Your task to perform on an android device: What's the weather? Image 0: 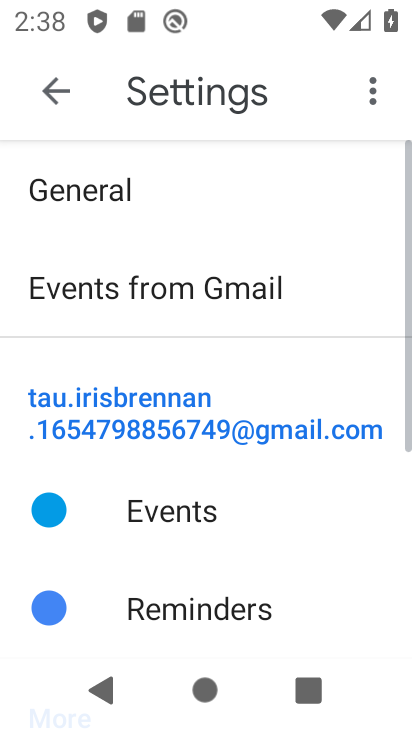
Step 0: drag from (346, 483) to (346, 289)
Your task to perform on an android device: What's the weather? Image 1: 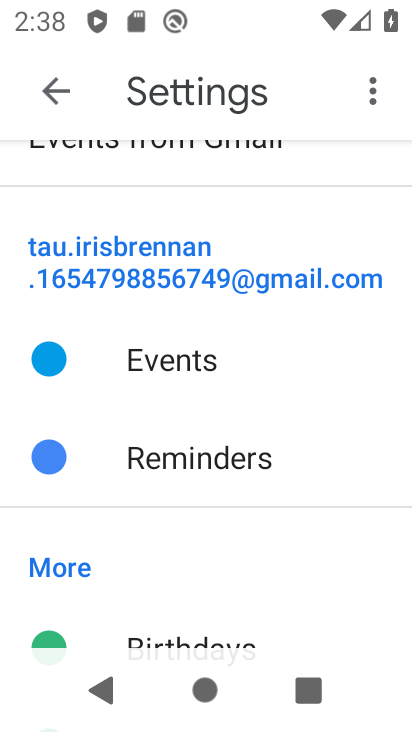
Step 1: press home button
Your task to perform on an android device: What's the weather? Image 2: 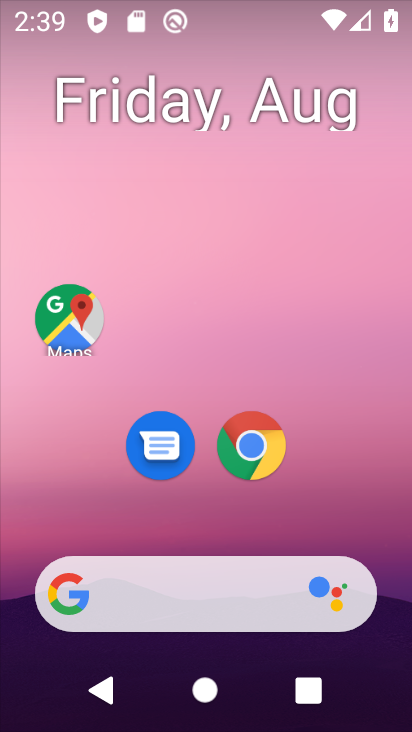
Step 2: drag from (331, 482) to (324, 144)
Your task to perform on an android device: What's the weather? Image 3: 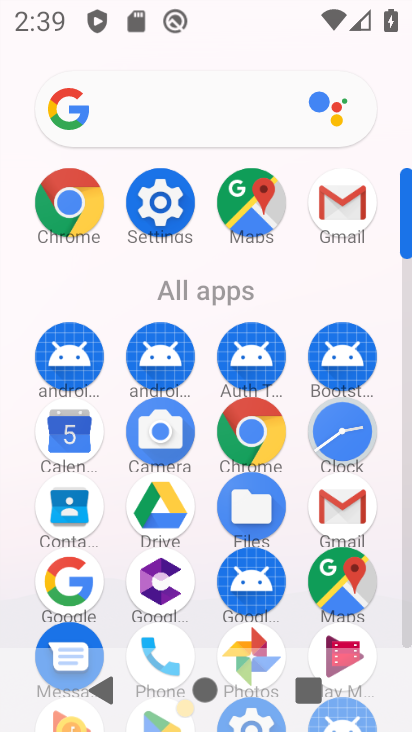
Step 3: click (253, 435)
Your task to perform on an android device: What's the weather? Image 4: 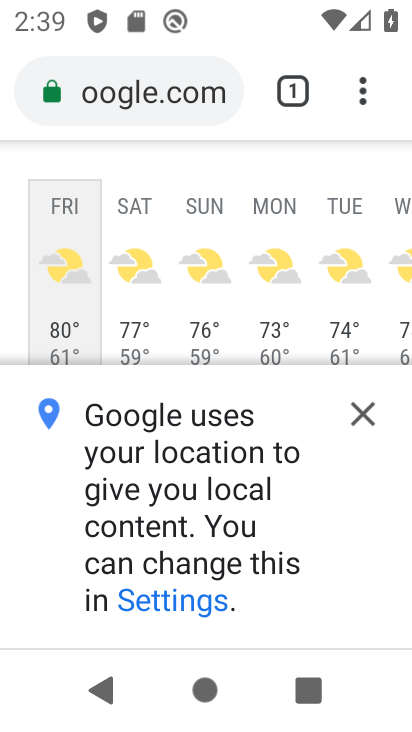
Step 4: task complete